Your task to perform on an android device: Go to Yahoo.com Image 0: 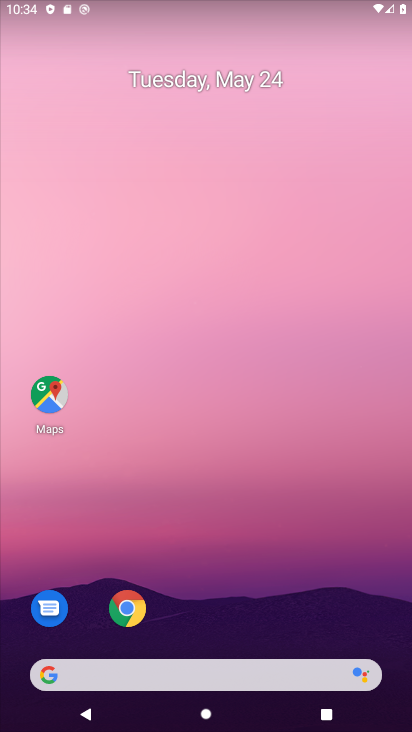
Step 0: click (130, 610)
Your task to perform on an android device: Go to Yahoo.com Image 1: 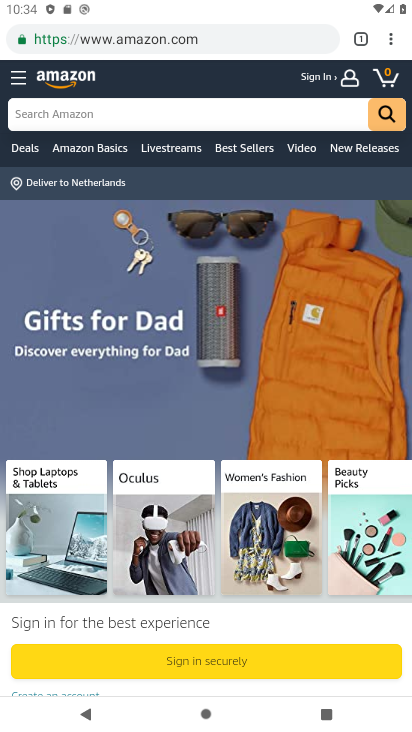
Step 1: click (210, 44)
Your task to perform on an android device: Go to Yahoo.com Image 2: 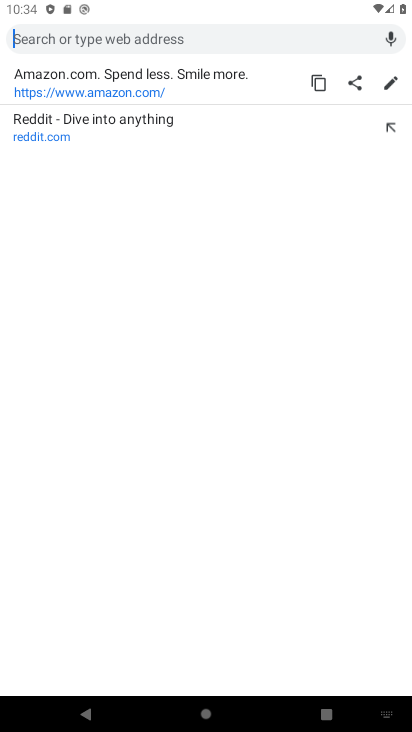
Step 2: type "yahoo.com"
Your task to perform on an android device: Go to Yahoo.com Image 3: 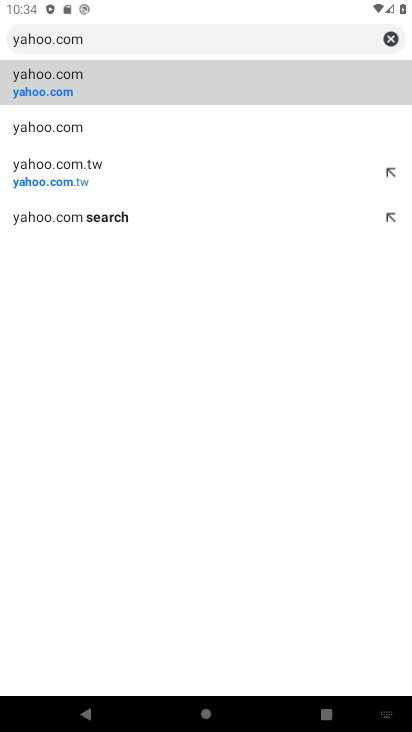
Step 3: click (74, 77)
Your task to perform on an android device: Go to Yahoo.com Image 4: 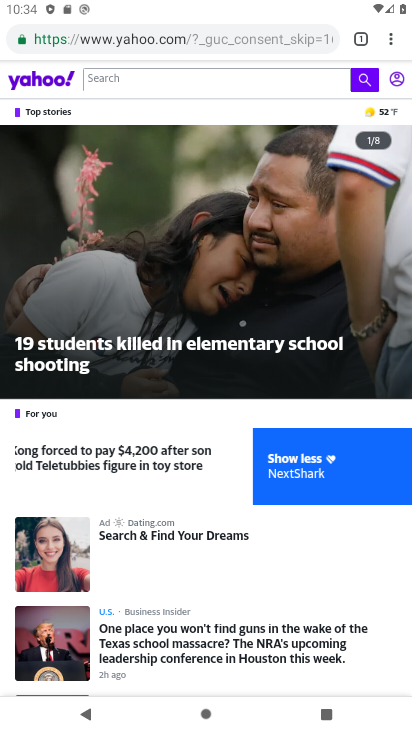
Step 4: task complete